Your task to perform on an android device: read, delete, or share a saved page in the chrome app Image 0: 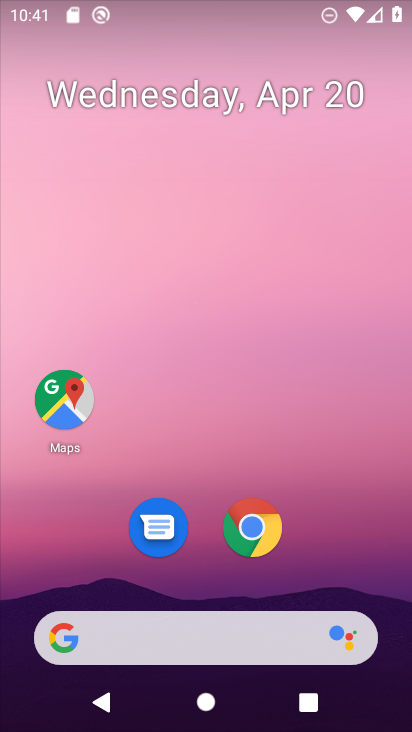
Step 0: click (245, 533)
Your task to perform on an android device: read, delete, or share a saved page in the chrome app Image 1: 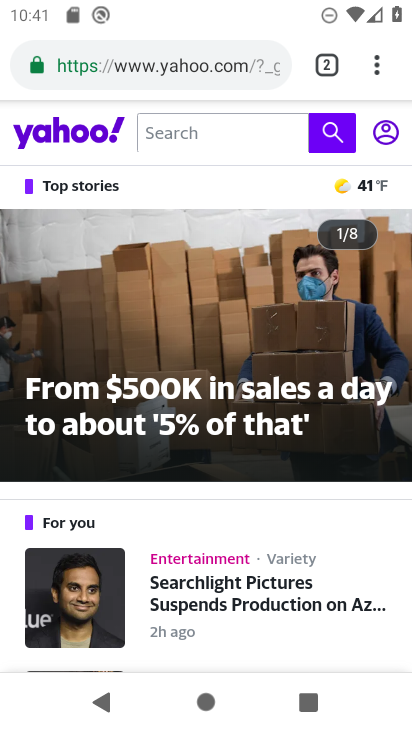
Step 1: click (375, 60)
Your task to perform on an android device: read, delete, or share a saved page in the chrome app Image 2: 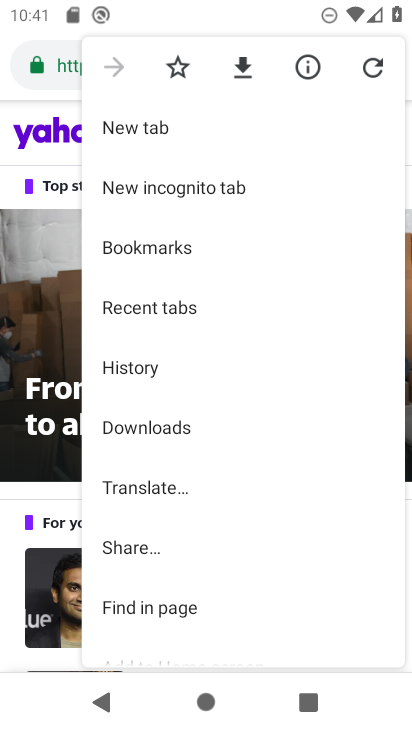
Step 2: click (156, 429)
Your task to perform on an android device: read, delete, or share a saved page in the chrome app Image 3: 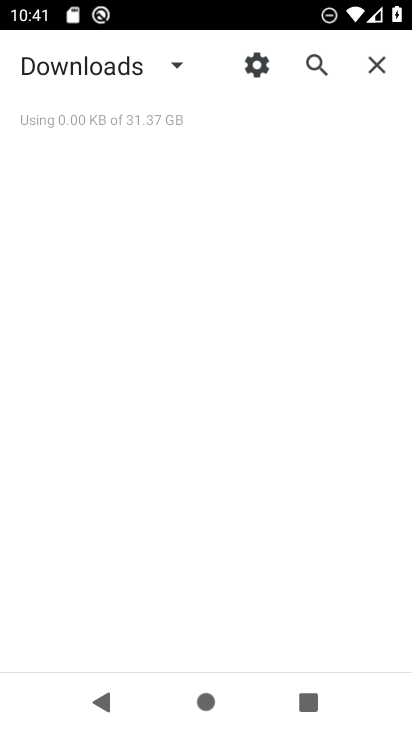
Step 3: task complete